Your task to perform on an android device: Open the settings Image 0: 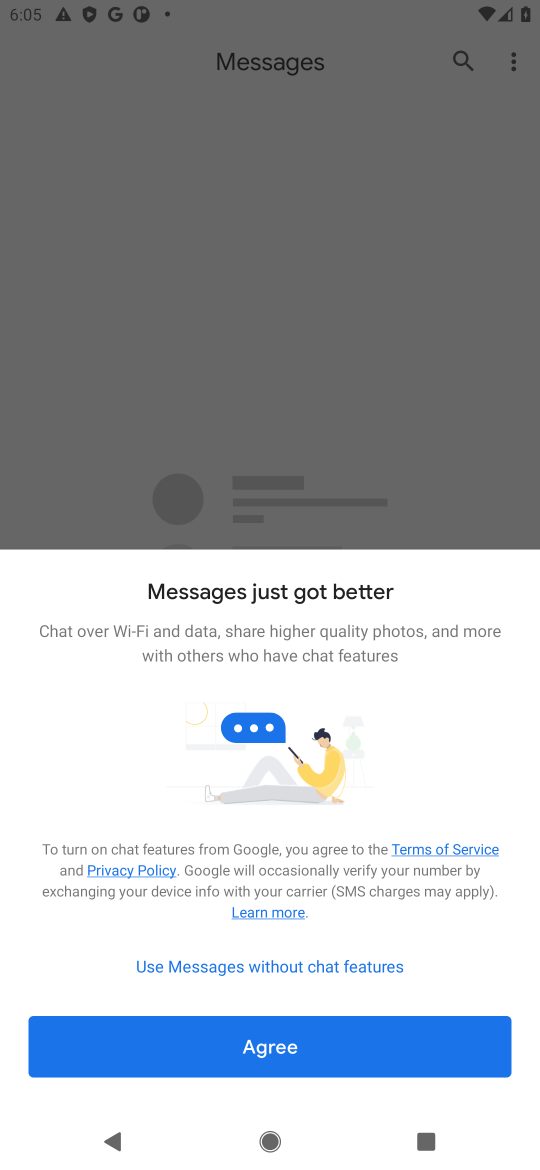
Step 0: press home button
Your task to perform on an android device: Open the settings Image 1: 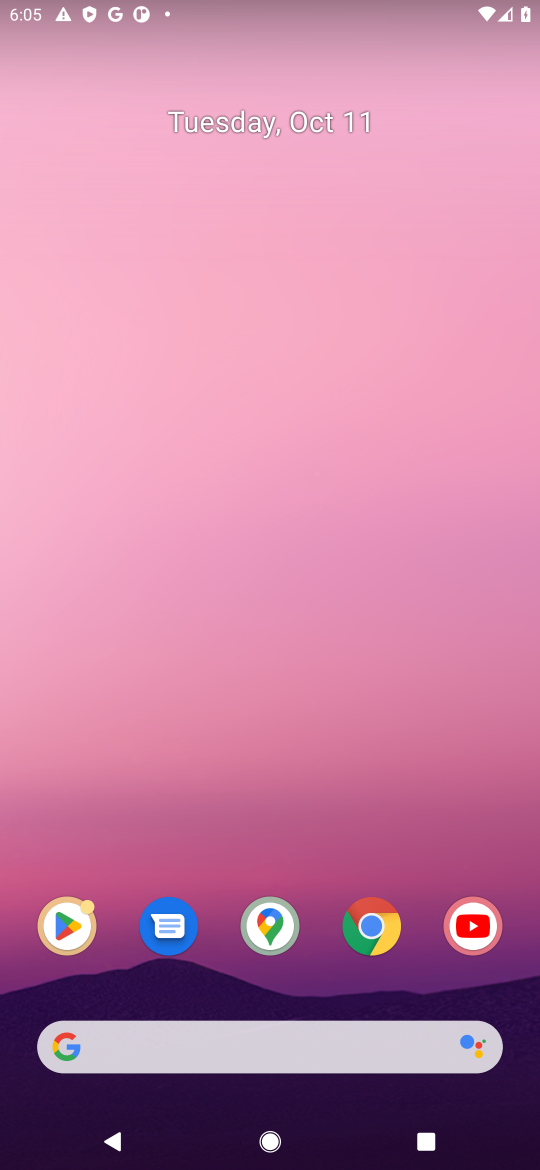
Step 1: drag from (268, 726) to (232, 194)
Your task to perform on an android device: Open the settings Image 2: 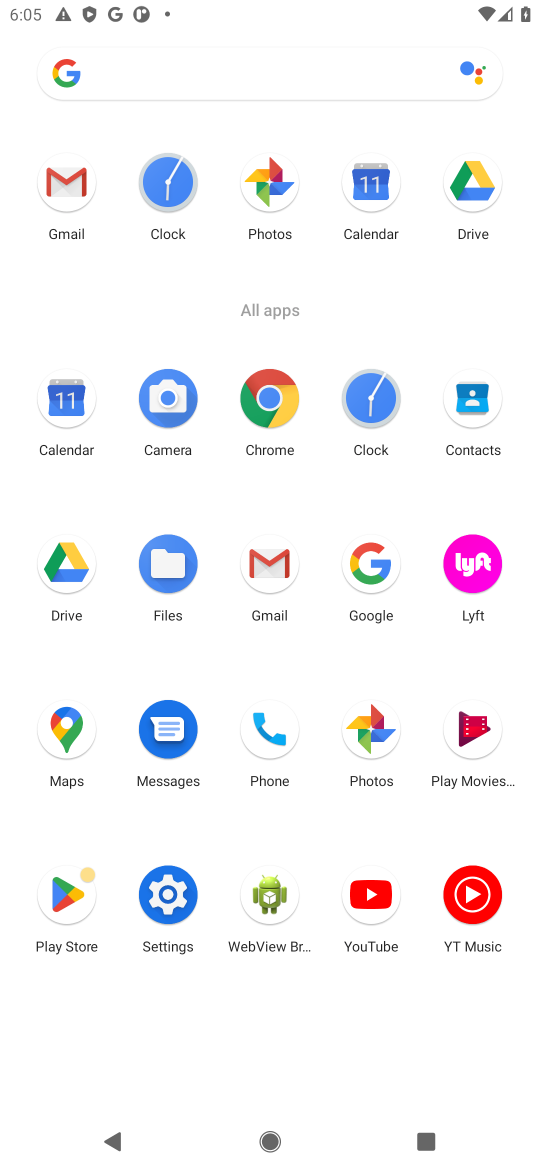
Step 2: click (168, 883)
Your task to perform on an android device: Open the settings Image 3: 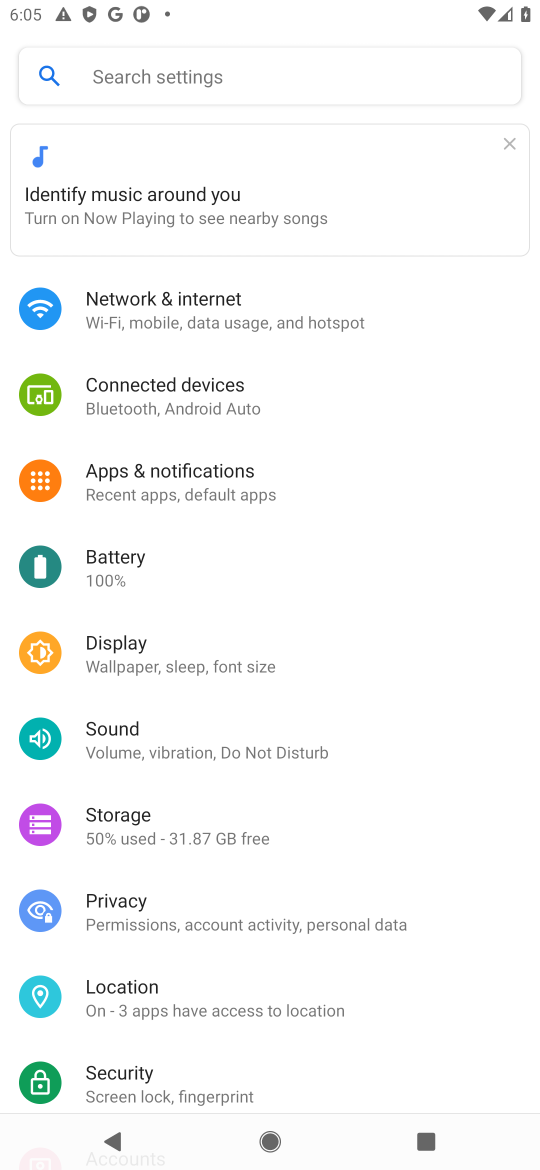
Step 3: task complete